Your task to perform on an android device: Do I have any events tomorrow? Image 0: 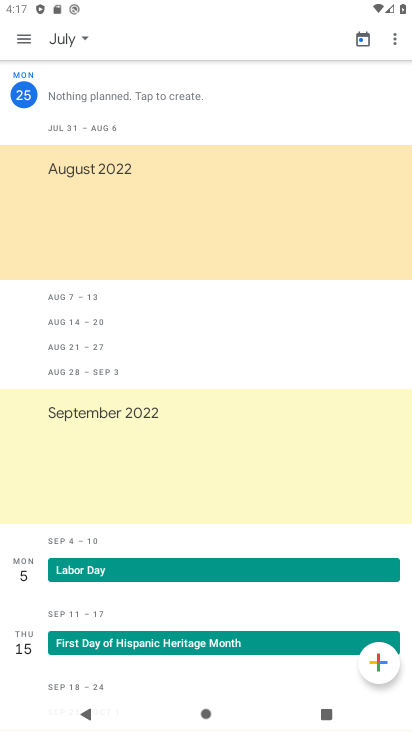
Step 0: click (21, 37)
Your task to perform on an android device: Do I have any events tomorrow? Image 1: 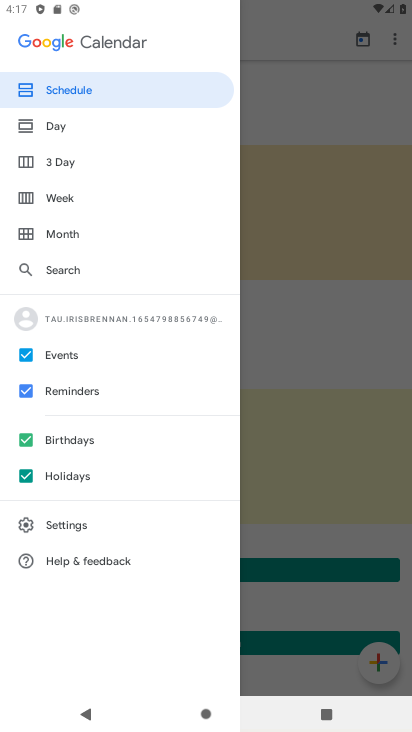
Step 1: click (73, 160)
Your task to perform on an android device: Do I have any events tomorrow? Image 2: 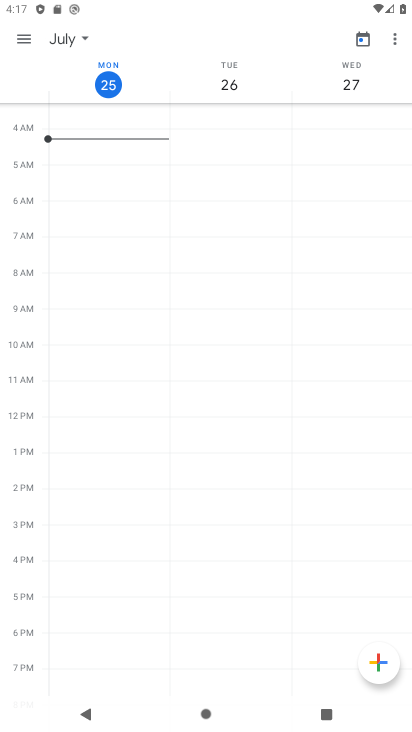
Step 2: click (23, 37)
Your task to perform on an android device: Do I have any events tomorrow? Image 3: 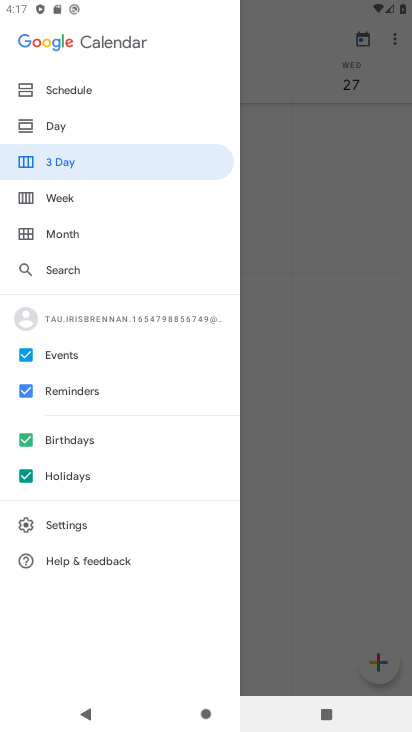
Step 3: click (78, 393)
Your task to perform on an android device: Do I have any events tomorrow? Image 4: 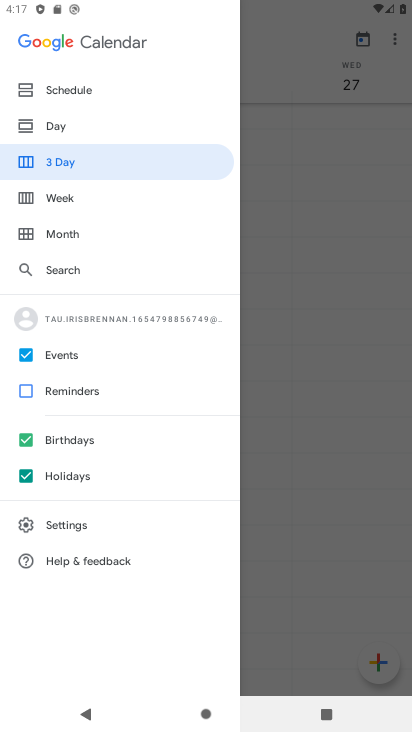
Step 4: click (70, 445)
Your task to perform on an android device: Do I have any events tomorrow? Image 5: 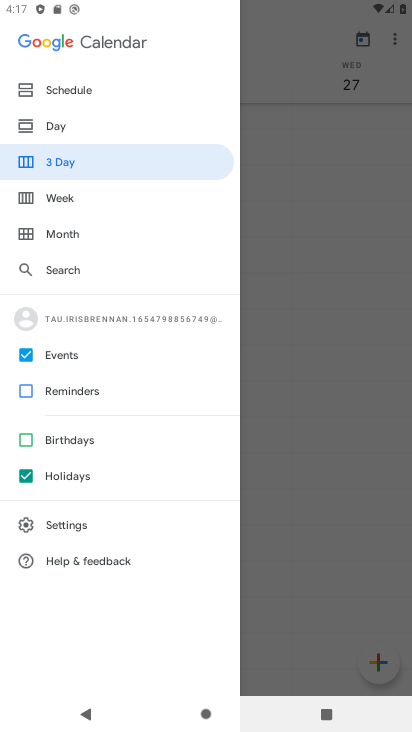
Step 5: click (72, 476)
Your task to perform on an android device: Do I have any events tomorrow? Image 6: 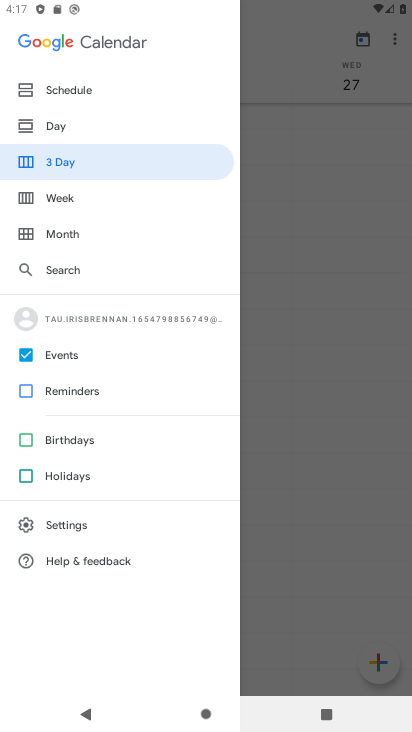
Step 6: click (77, 163)
Your task to perform on an android device: Do I have any events tomorrow? Image 7: 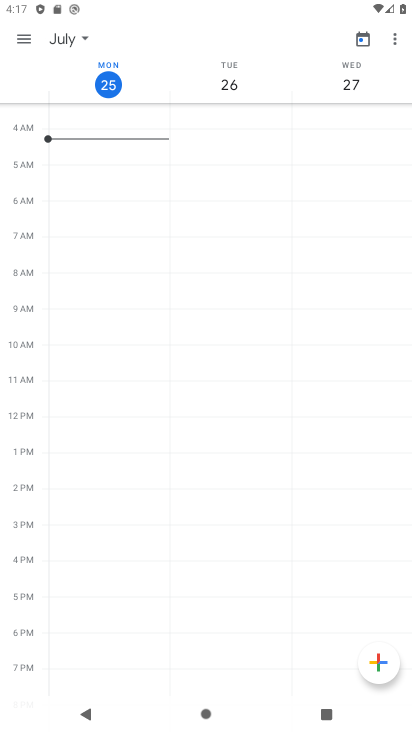
Step 7: task complete